Your task to perform on an android device: Open Google Image 0: 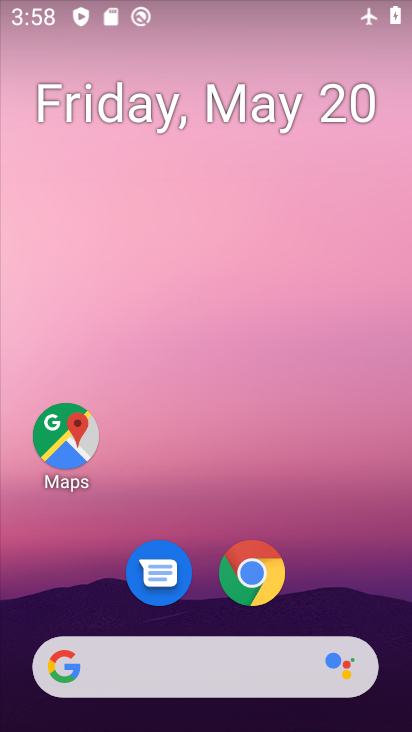
Step 0: drag from (335, 589) to (197, 161)
Your task to perform on an android device: Open Google Image 1: 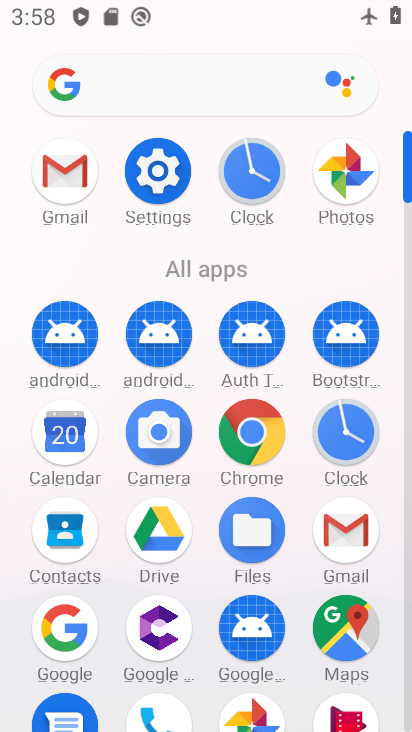
Step 1: click (78, 636)
Your task to perform on an android device: Open Google Image 2: 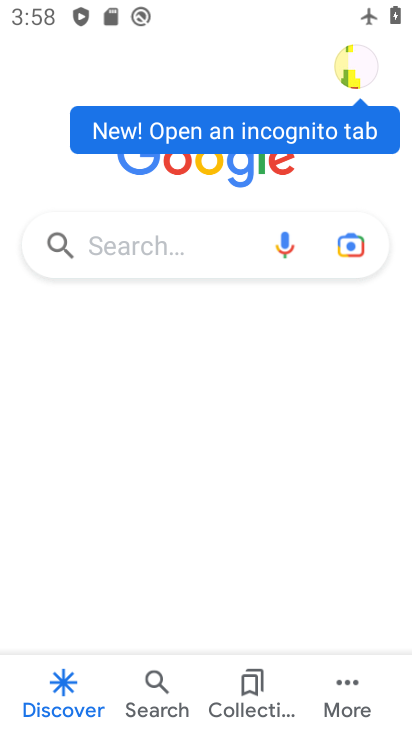
Step 2: task complete